Your task to perform on an android device: stop showing notifications on the lock screen Image 0: 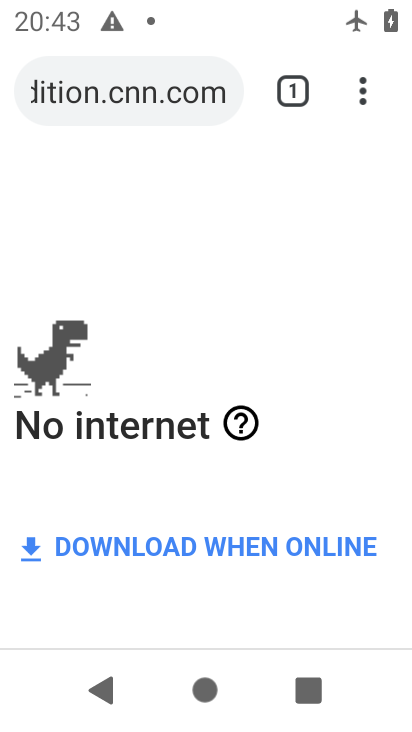
Step 0: press home button
Your task to perform on an android device: stop showing notifications on the lock screen Image 1: 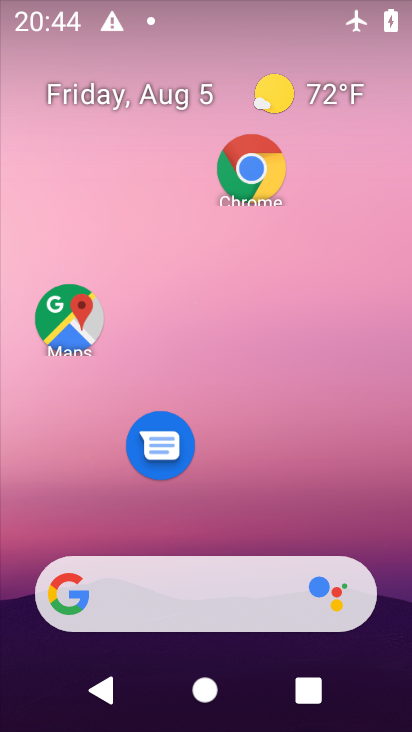
Step 1: drag from (209, 526) to (178, 116)
Your task to perform on an android device: stop showing notifications on the lock screen Image 2: 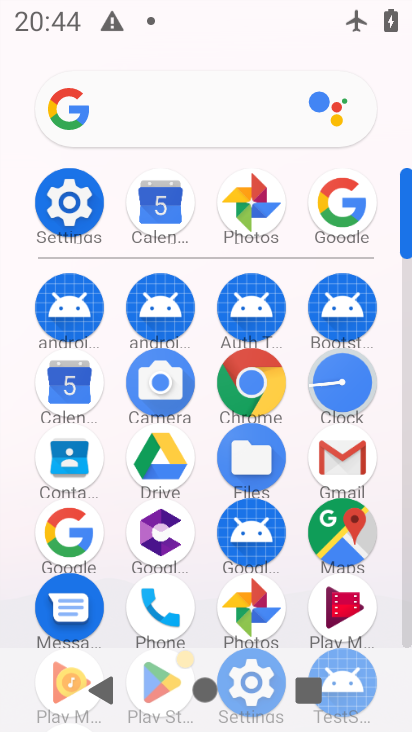
Step 2: click (79, 211)
Your task to perform on an android device: stop showing notifications on the lock screen Image 3: 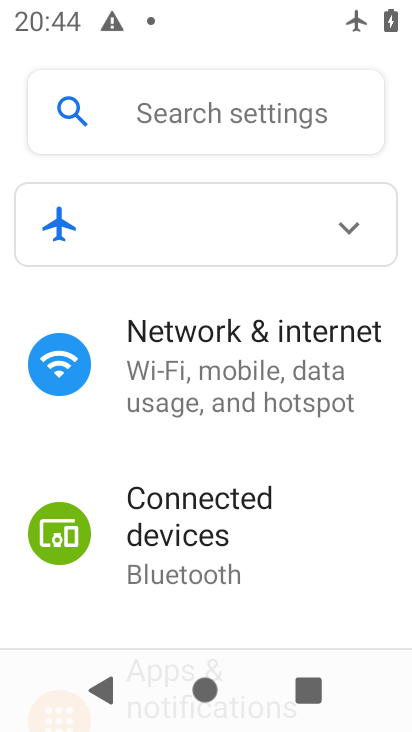
Step 3: drag from (220, 562) to (233, 195)
Your task to perform on an android device: stop showing notifications on the lock screen Image 4: 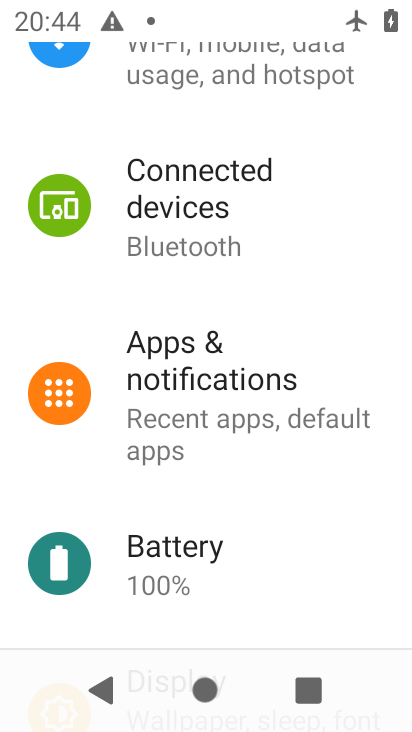
Step 4: click (238, 408)
Your task to perform on an android device: stop showing notifications on the lock screen Image 5: 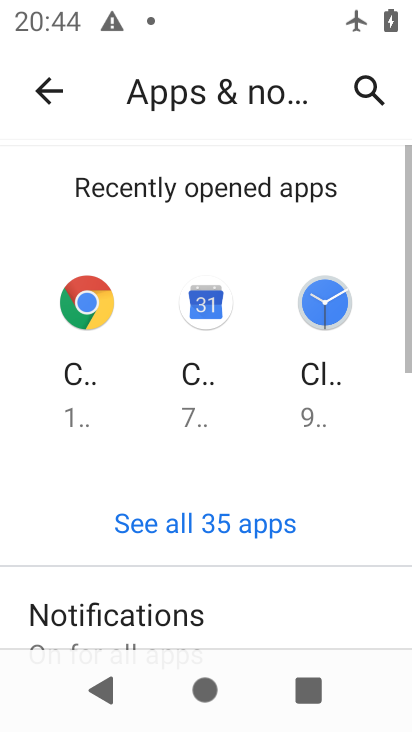
Step 5: drag from (223, 595) to (213, 325)
Your task to perform on an android device: stop showing notifications on the lock screen Image 6: 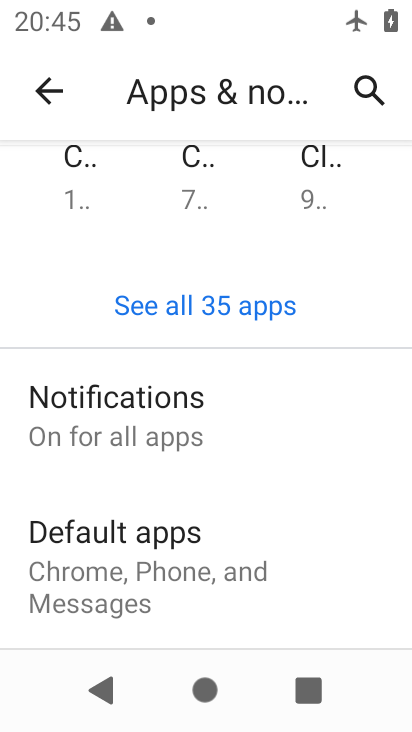
Step 6: click (130, 412)
Your task to perform on an android device: stop showing notifications on the lock screen Image 7: 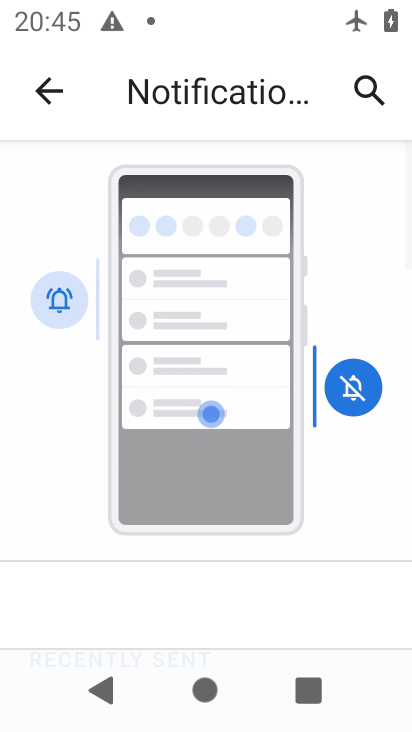
Step 7: drag from (228, 584) to (228, 183)
Your task to perform on an android device: stop showing notifications on the lock screen Image 8: 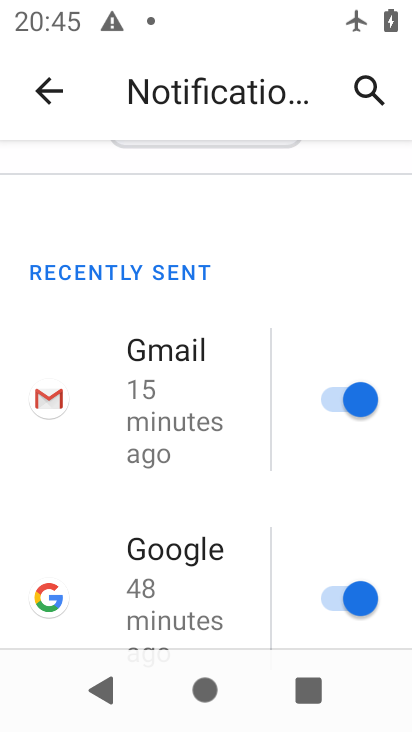
Step 8: drag from (219, 533) to (240, 136)
Your task to perform on an android device: stop showing notifications on the lock screen Image 9: 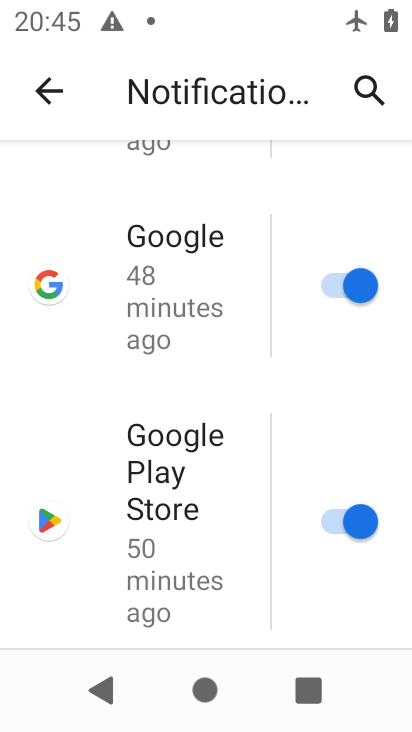
Step 9: drag from (229, 605) to (228, 199)
Your task to perform on an android device: stop showing notifications on the lock screen Image 10: 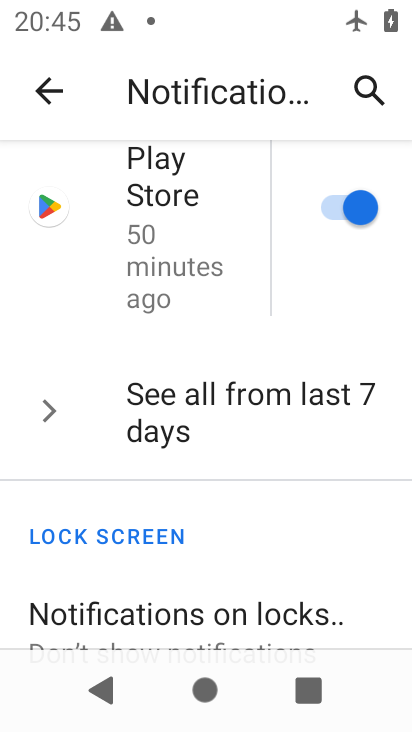
Step 10: drag from (228, 594) to (229, 350)
Your task to perform on an android device: stop showing notifications on the lock screen Image 11: 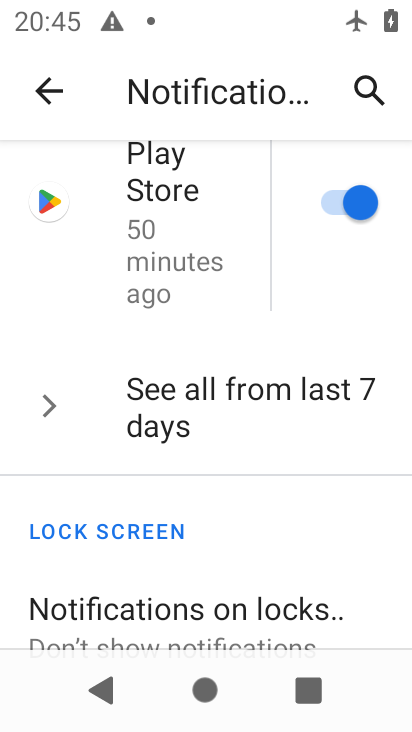
Step 11: click (232, 604)
Your task to perform on an android device: stop showing notifications on the lock screen Image 12: 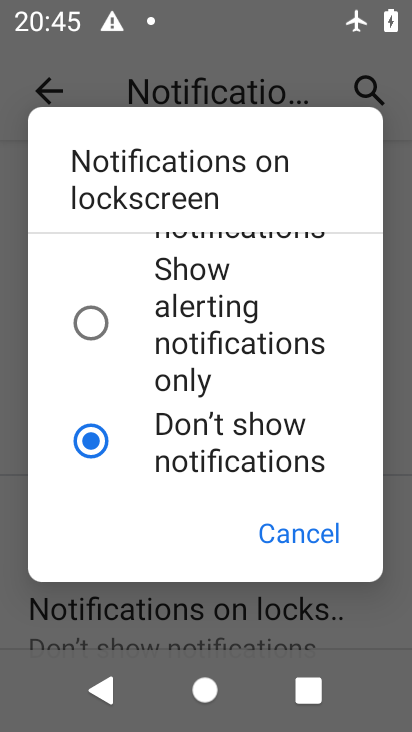
Step 12: task complete